Your task to perform on an android device: change the clock display to analog Image 0: 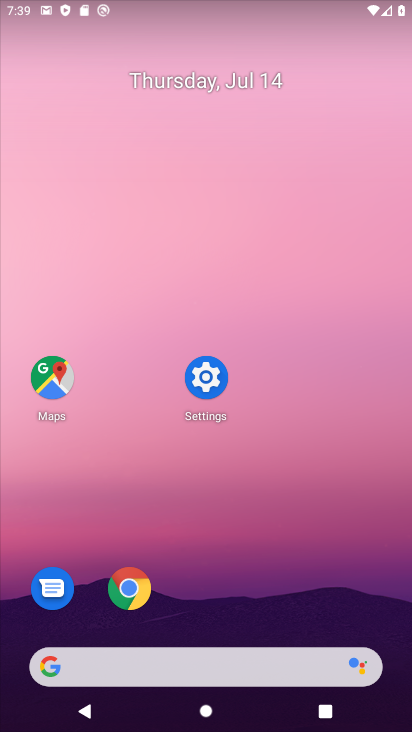
Step 0: drag from (387, 580) to (375, 36)
Your task to perform on an android device: change the clock display to analog Image 1: 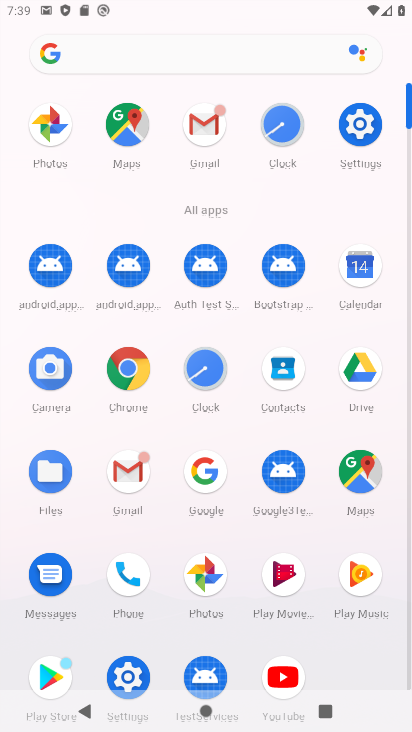
Step 1: drag from (208, 366) to (191, 459)
Your task to perform on an android device: change the clock display to analog Image 2: 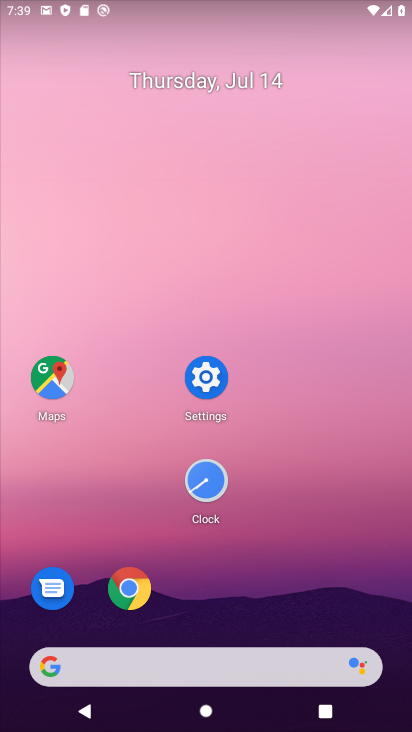
Step 2: click (204, 475)
Your task to perform on an android device: change the clock display to analog Image 3: 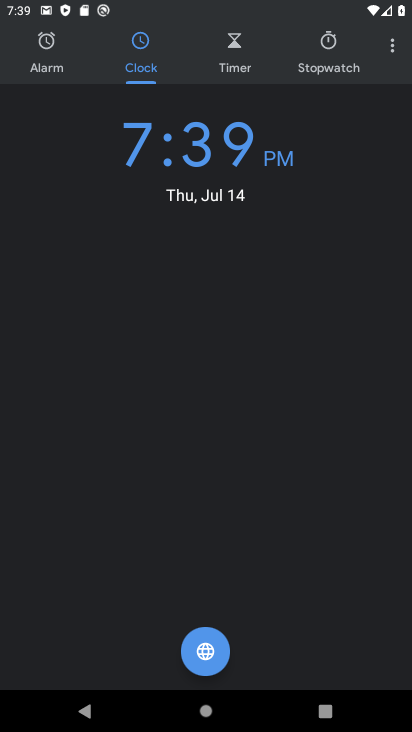
Step 3: click (391, 52)
Your task to perform on an android device: change the clock display to analog Image 4: 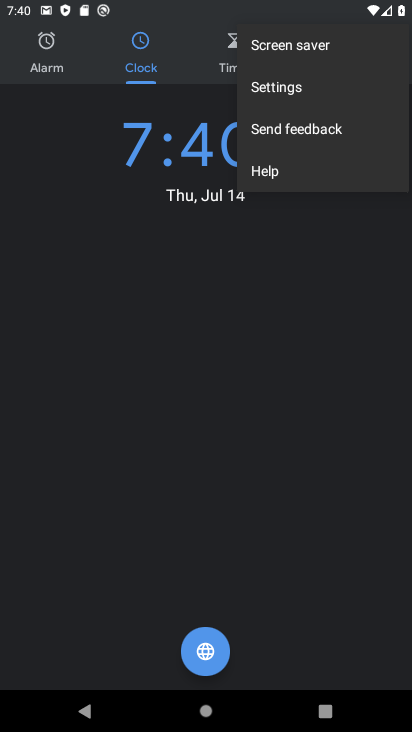
Step 4: click (272, 79)
Your task to perform on an android device: change the clock display to analog Image 5: 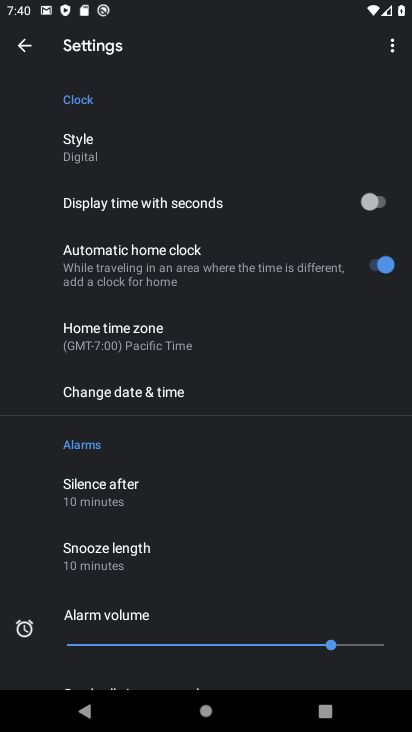
Step 5: click (78, 143)
Your task to perform on an android device: change the clock display to analog Image 6: 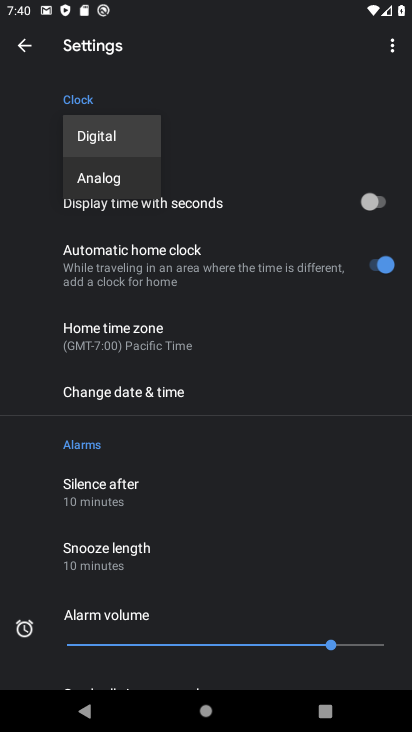
Step 6: click (84, 173)
Your task to perform on an android device: change the clock display to analog Image 7: 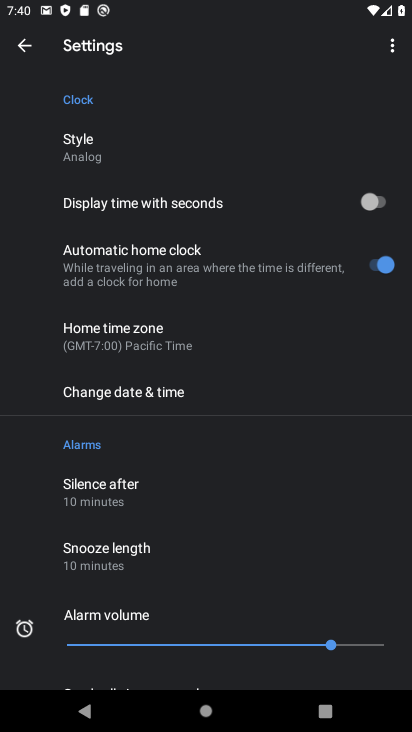
Step 7: task complete